Your task to perform on an android device: change notifications settings Image 0: 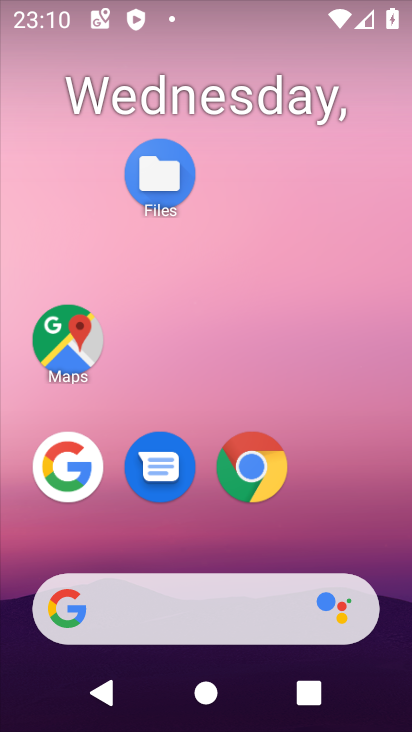
Step 0: drag from (200, 554) to (126, 38)
Your task to perform on an android device: change notifications settings Image 1: 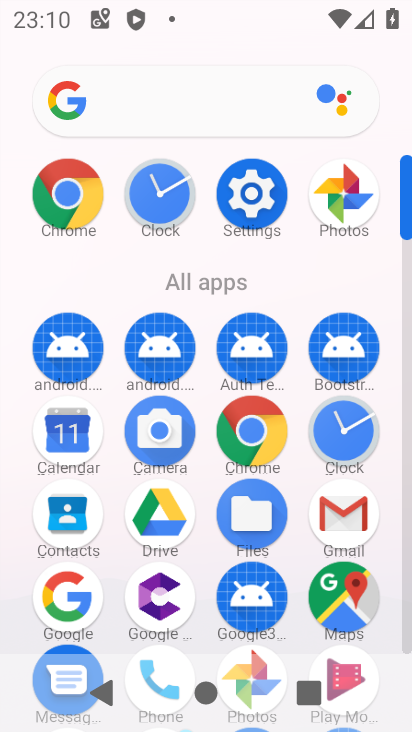
Step 1: click (247, 176)
Your task to perform on an android device: change notifications settings Image 2: 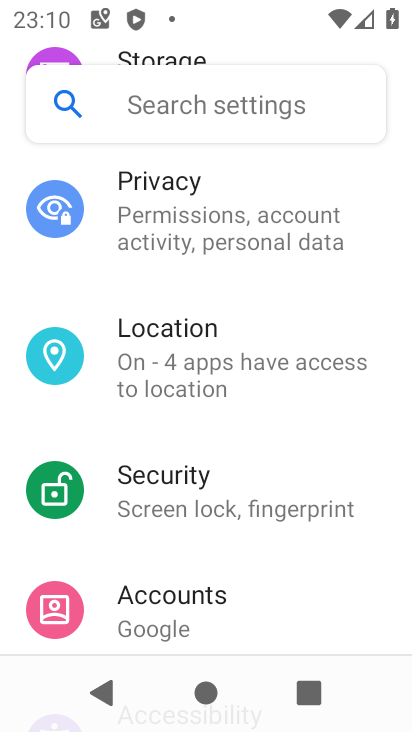
Step 2: drag from (283, 456) to (248, 91)
Your task to perform on an android device: change notifications settings Image 3: 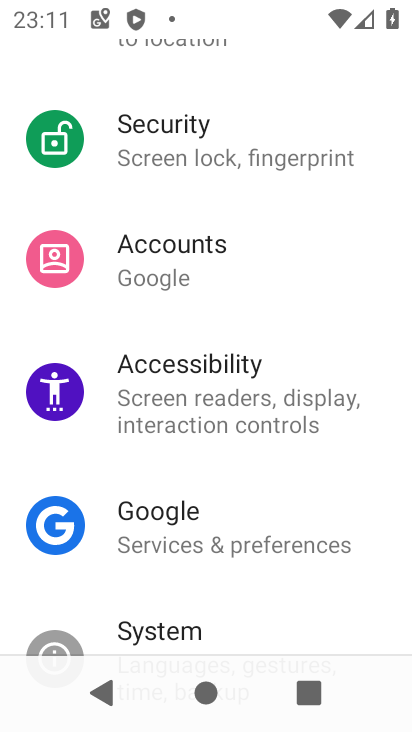
Step 3: drag from (291, 467) to (256, 49)
Your task to perform on an android device: change notifications settings Image 4: 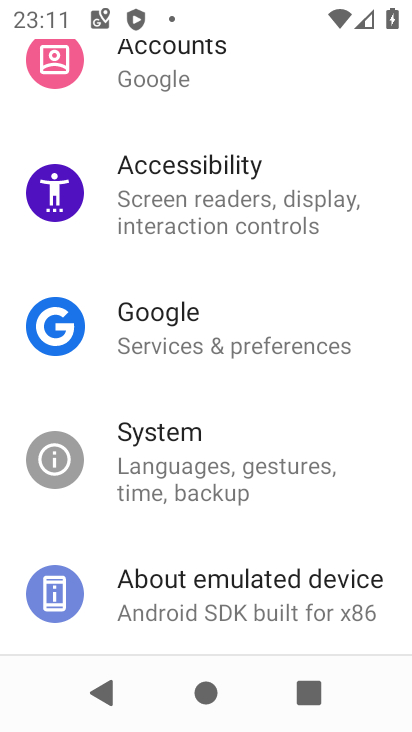
Step 4: drag from (275, 109) to (225, 586)
Your task to perform on an android device: change notifications settings Image 5: 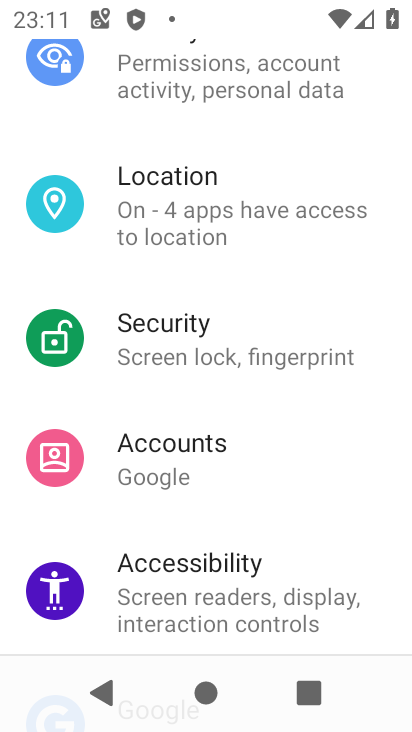
Step 5: drag from (273, 188) to (288, 539)
Your task to perform on an android device: change notifications settings Image 6: 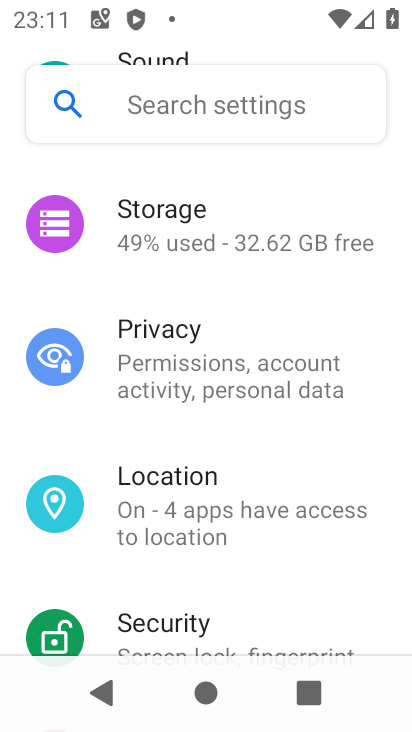
Step 6: drag from (316, 198) to (304, 508)
Your task to perform on an android device: change notifications settings Image 7: 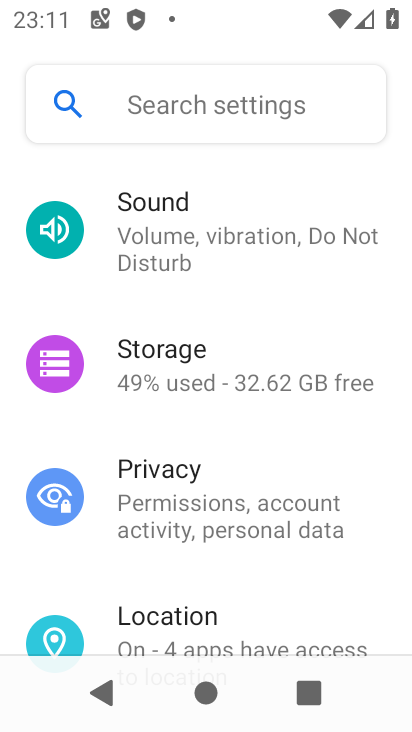
Step 7: drag from (336, 162) to (336, 524)
Your task to perform on an android device: change notifications settings Image 8: 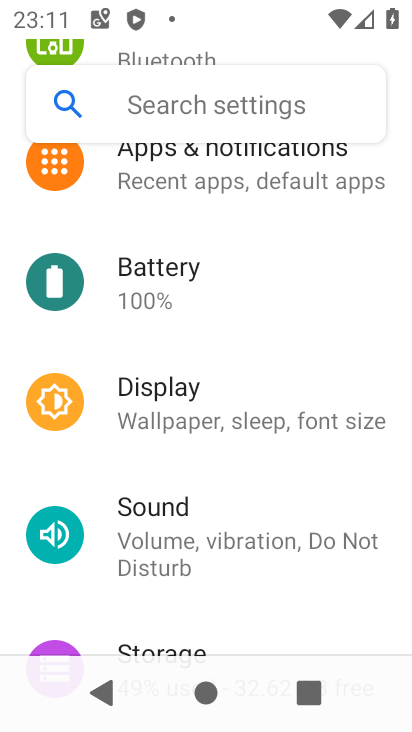
Step 8: click (237, 185)
Your task to perform on an android device: change notifications settings Image 9: 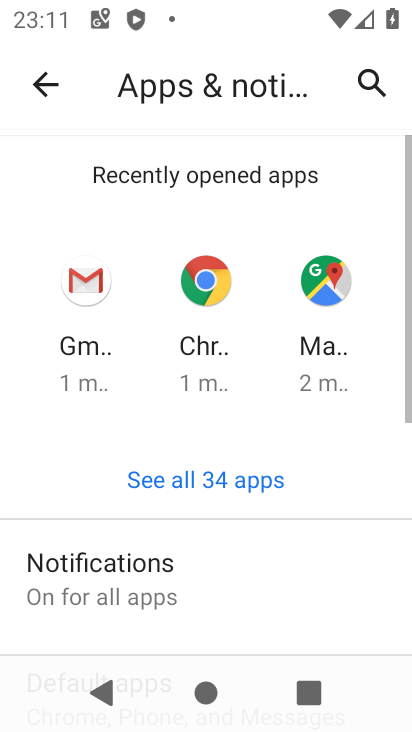
Step 9: click (90, 561)
Your task to perform on an android device: change notifications settings Image 10: 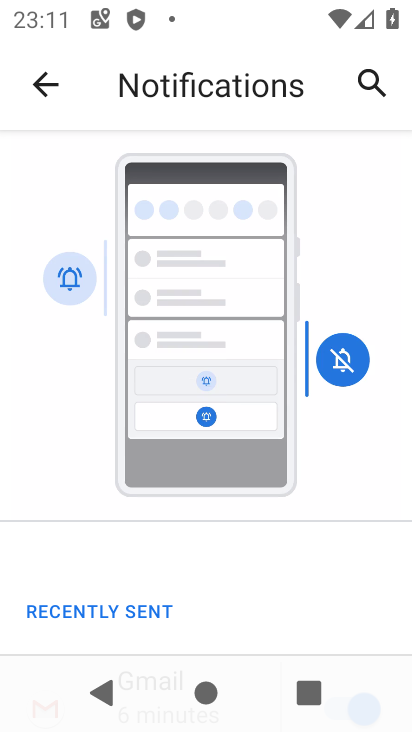
Step 10: drag from (172, 603) to (95, 32)
Your task to perform on an android device: change notifications settings Image 11: 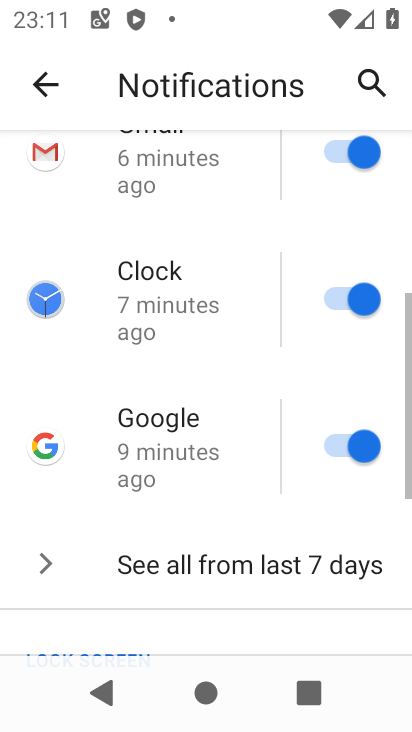
Step 11: click (146, 519)
Your task to perform on an android device: change notifications settings Image 12: 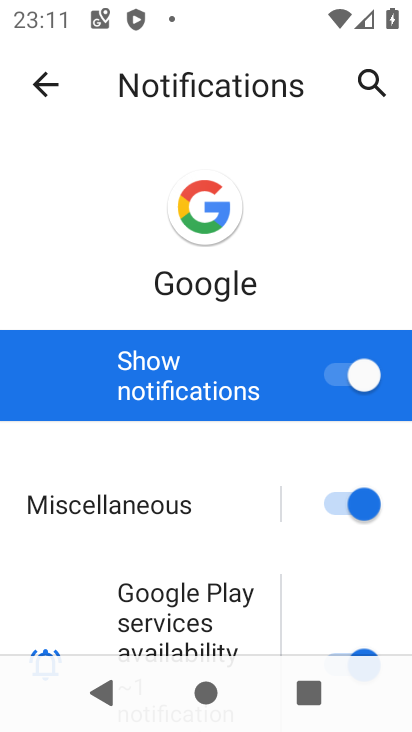
Step 12: click (51, 62)
Your task to perform on an android device: change notifications settings Image 13: 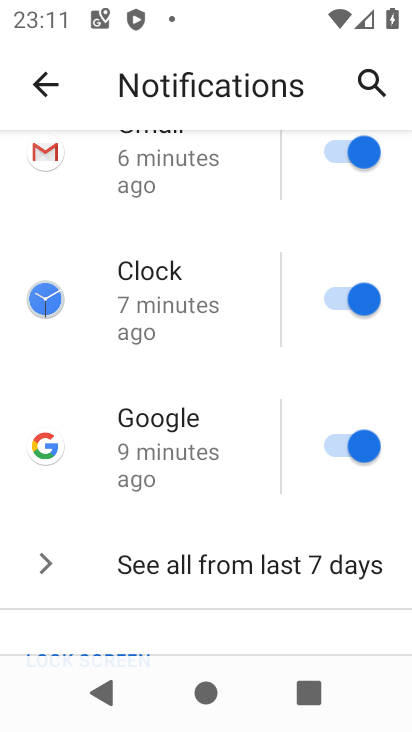
Step 13: click (191, 560)
Your task to perform on an android device: change notifications settings Image 14: 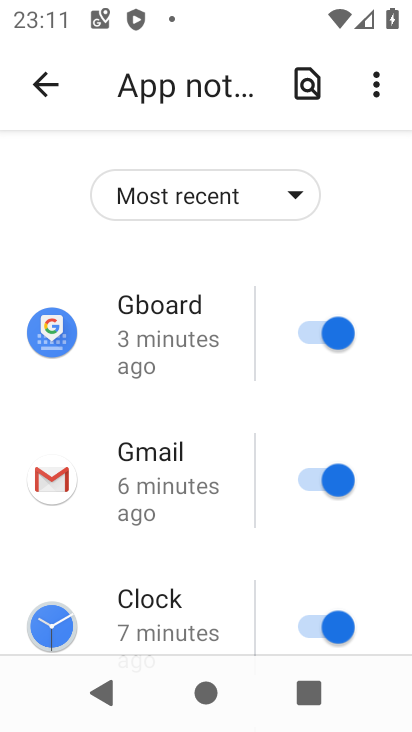
Step 14: click (191, 203)
Your task to perform on an android device: change notifications settings Image 15: 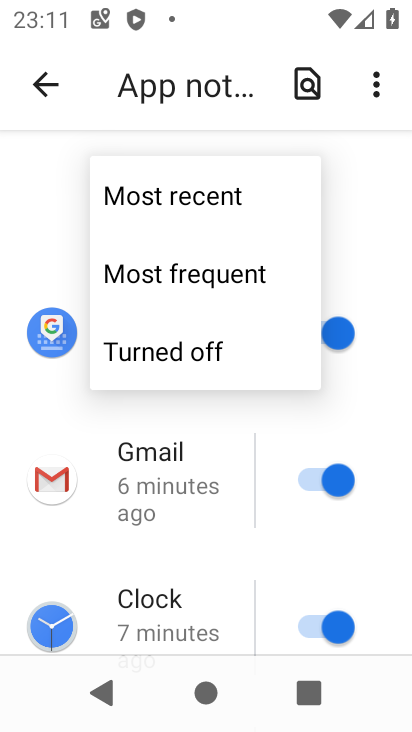
Step 15: click (195, 349)
Your task to perform on an android device: change notifications settings Image 16: 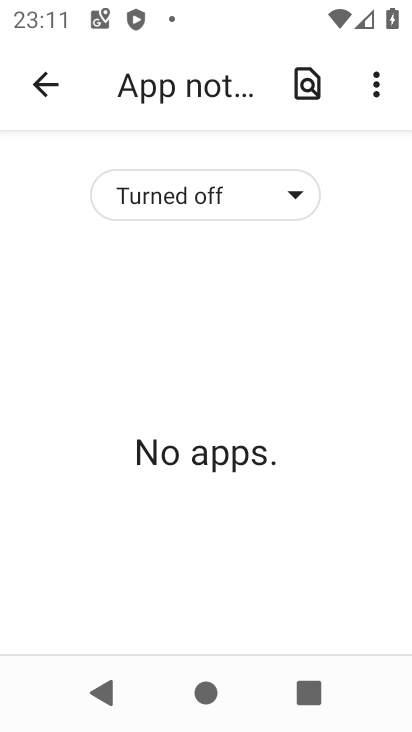
Step 16: task complete